Your task to perform on an android device: toggle wifi Image 0: 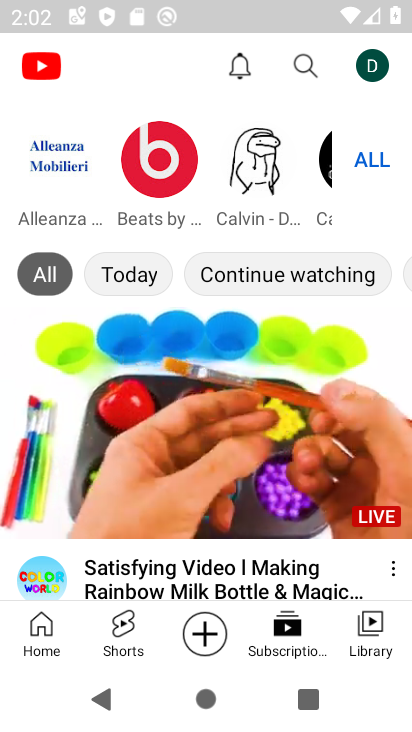
Step 0: press home button
Your task to perform on an android device: toggle wifi Image 1: 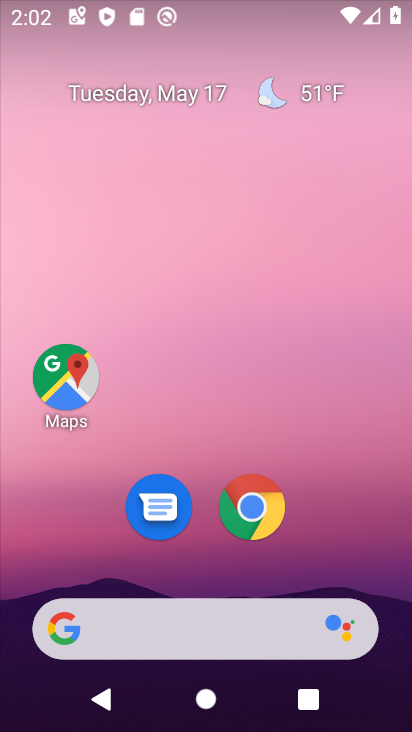
Step 1: drag from (308, 557) to (309, 52)
Your task to perform on an android device: toggle wifi Image 2: 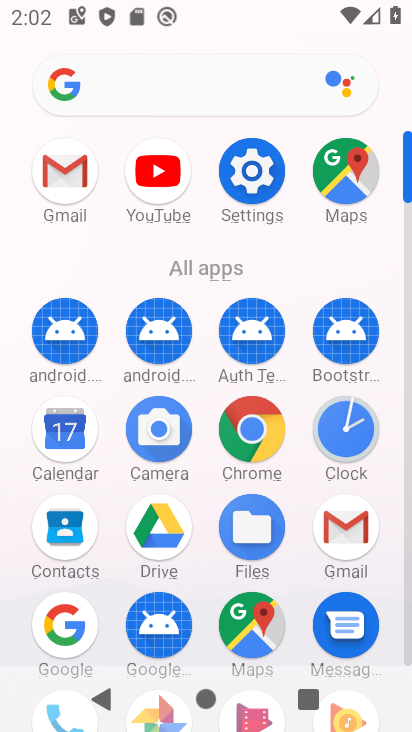
Step 2: click (248, 165)
Your task to perform on an android device: toggle wifi Image 3: 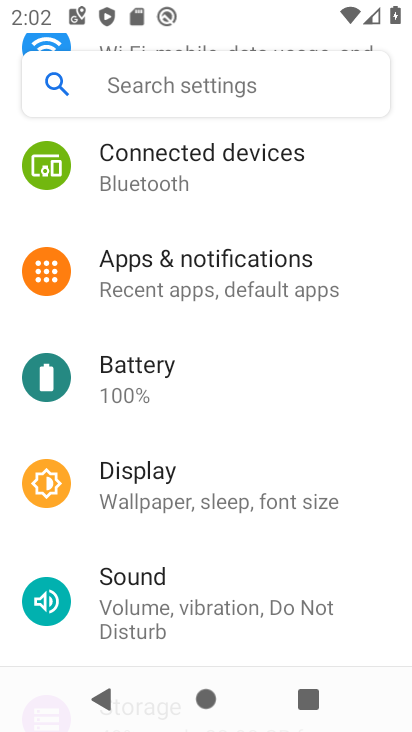
Step 3: drag from (228, 208) to (281, 635)
Your task to perform on an android device: toggle wifi Image 4: 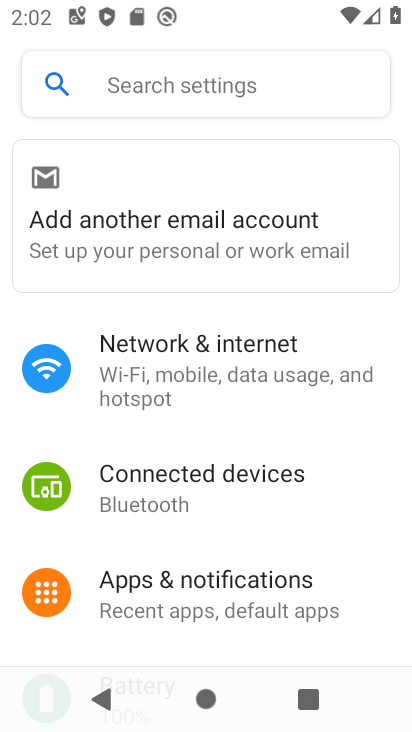
Step 4: click (248, 378)
Your task to perform on an android device: toggle wifi Image 5: 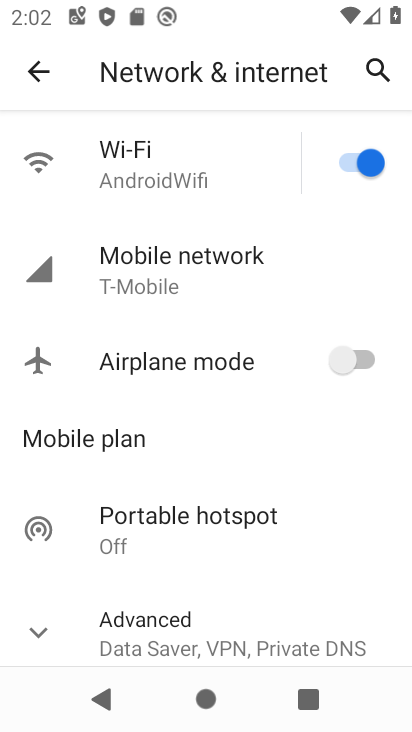
Step 5: click (353, 168)
Your task to perform on an android device: toggle wifi Image 6: 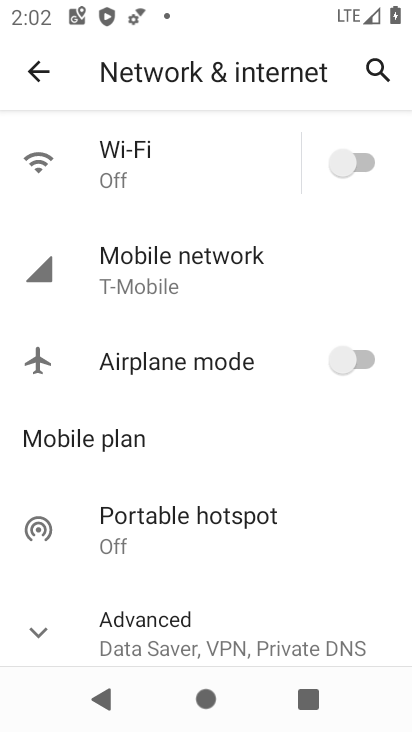
Step 6: task complete